Your task to perform on an android device: turn on wifi Image 0: 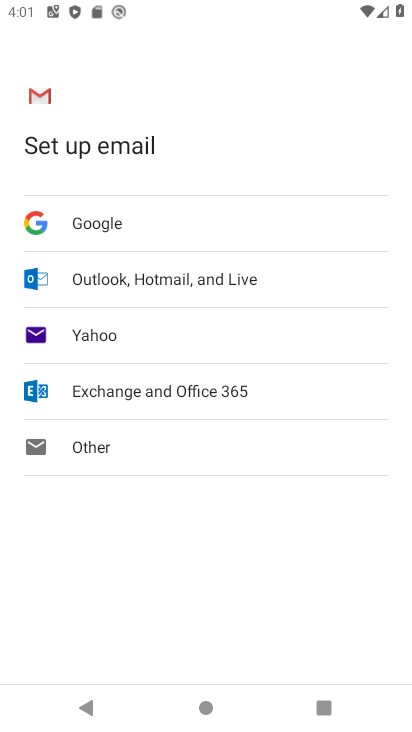
Step 0: press home button
Your task to perform on an android device: turn on wifi Image 1: 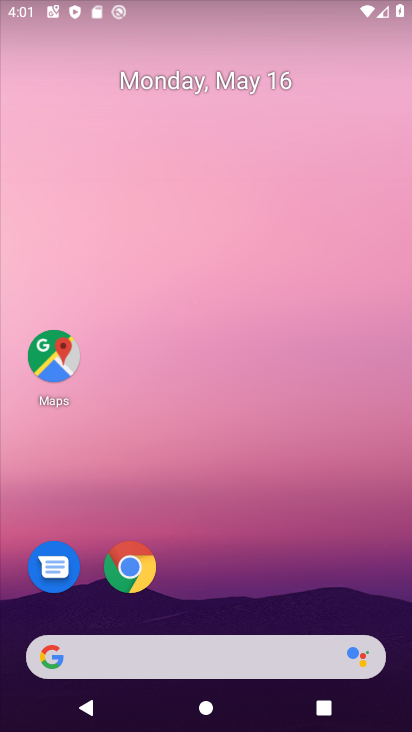
Step 1: drag from (186, 636) to (261, 4)
Your task to perform on an android device: turn on wifi Image 2: 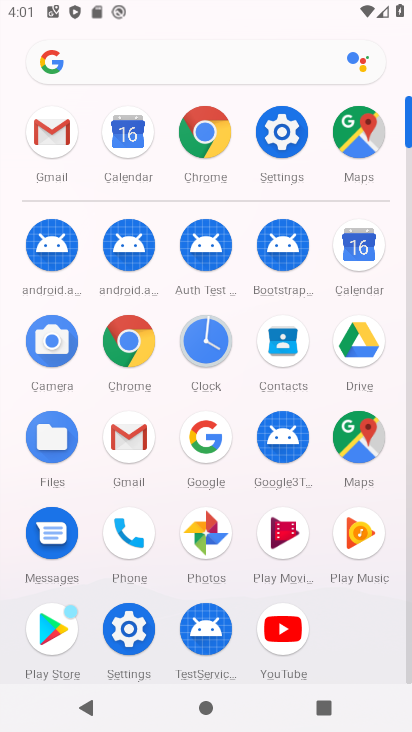
Step 2: click (286, 133)
Your task to perform on an android device: turn on wifi Image 3: 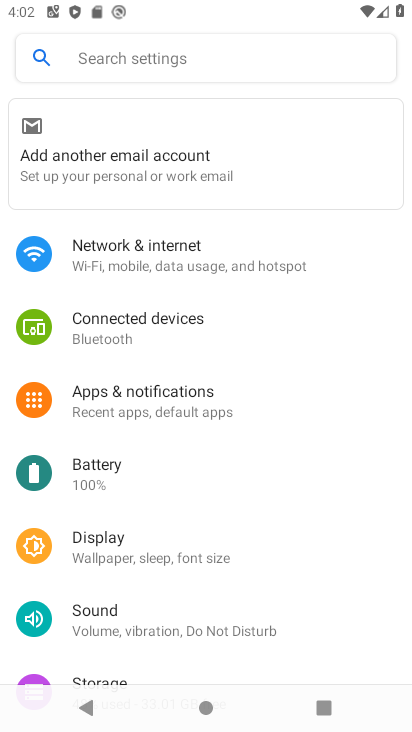
Step 3: drag from (283, 655) to (301, 249)
Your task to perform on an android device: turn on wifi Image 4: 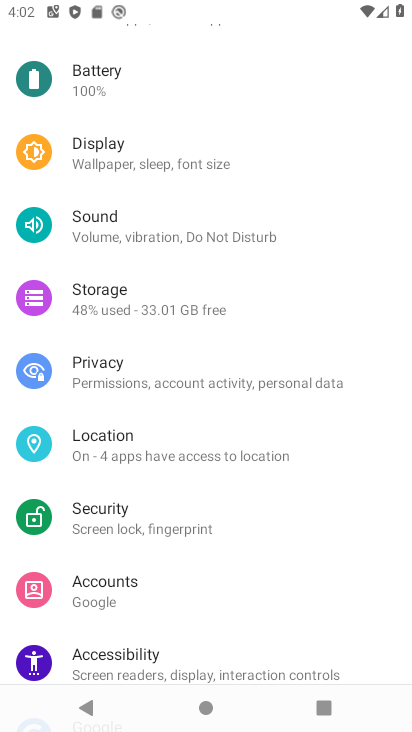
Step 4: drag from (207, 215) to (260, 669)
Your task to perform on an android device: turn on wifi Image 5: 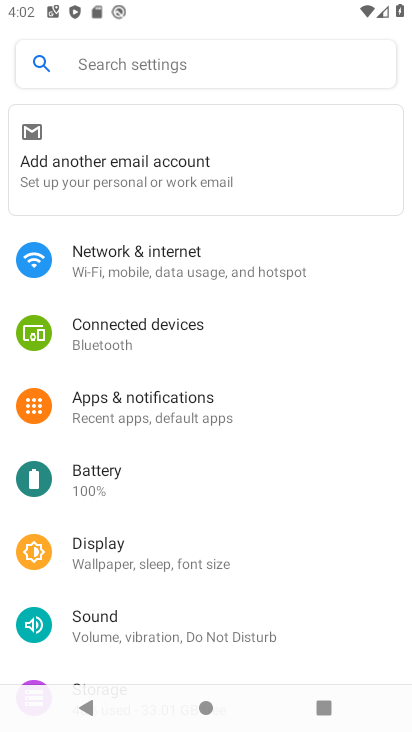
Step 5: click (202, 266)
Your task to perform on an android device: turn on wifi Image 6: 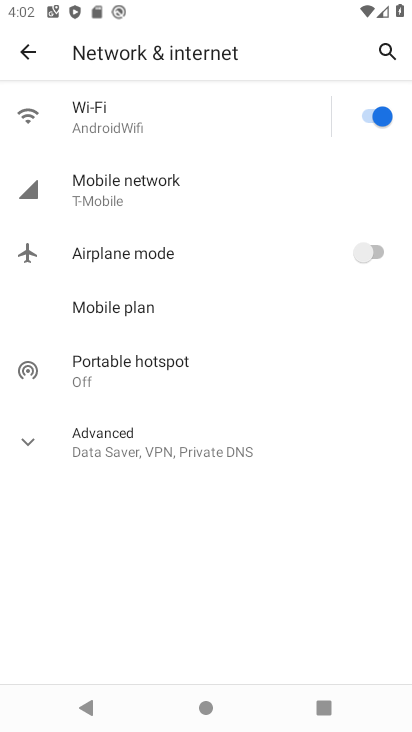
Step 6: click (134, 198)
Your task to perform on an android device: turn on wifi Image 7: 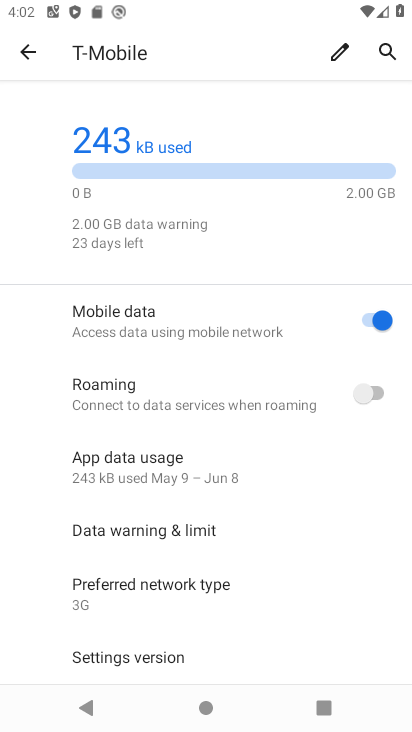
Step 7: task complete